Your task to perform on an android device: Go to Wikipedia Image 0: 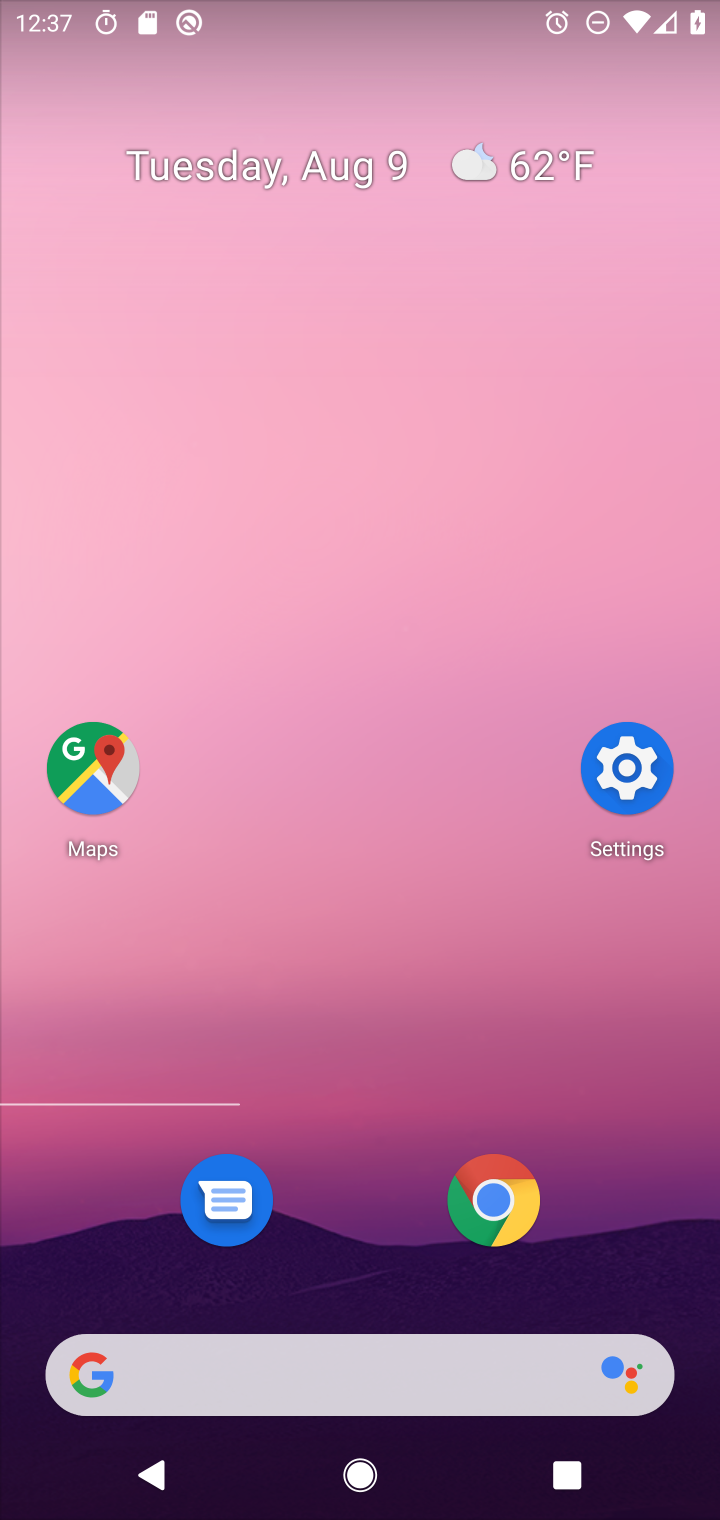
Step 0: click (501, 1197)
Your task to perform on an android device: Go to Wikipedia Image 1: 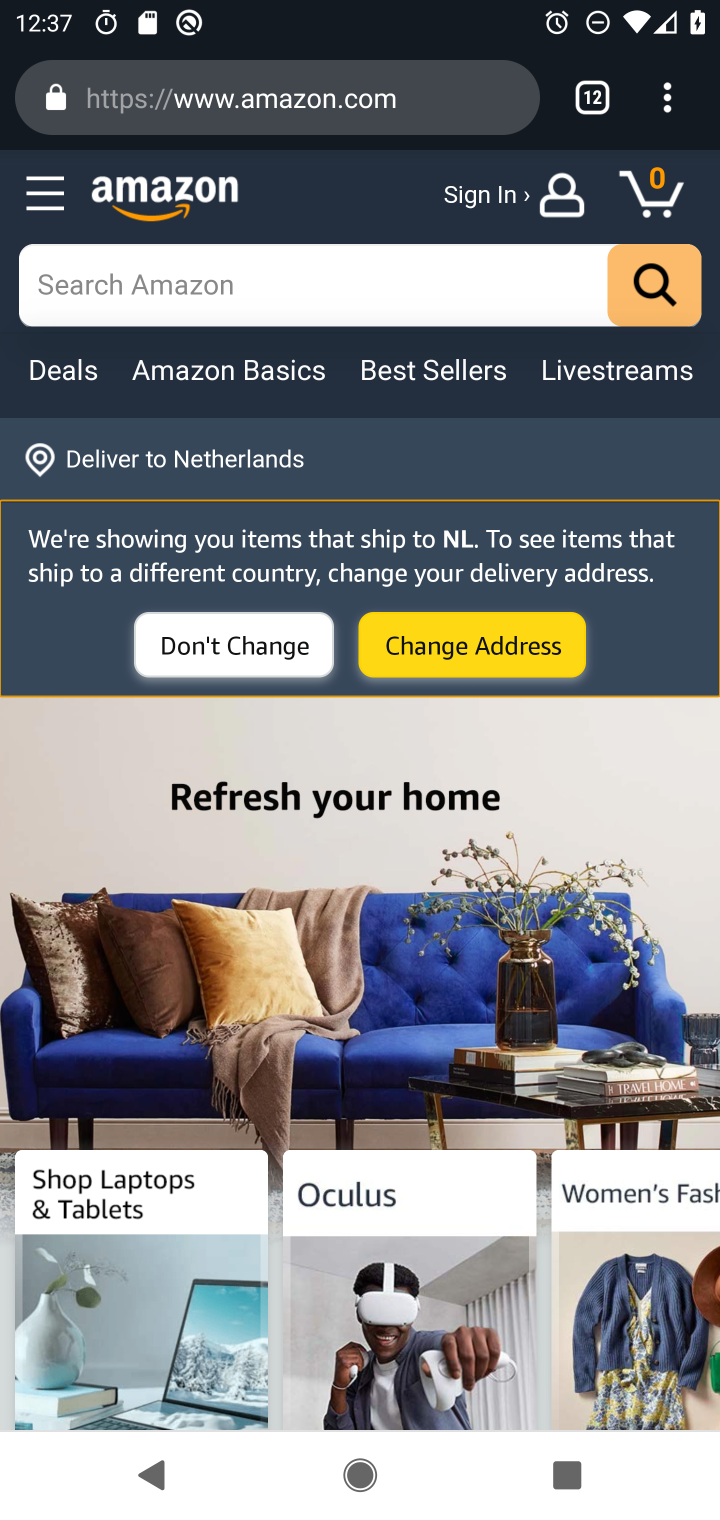
Step 1: drag from (672, 109) to (503, 298)
Your task to perform on an android device: Go to Wikipedia Image 2: 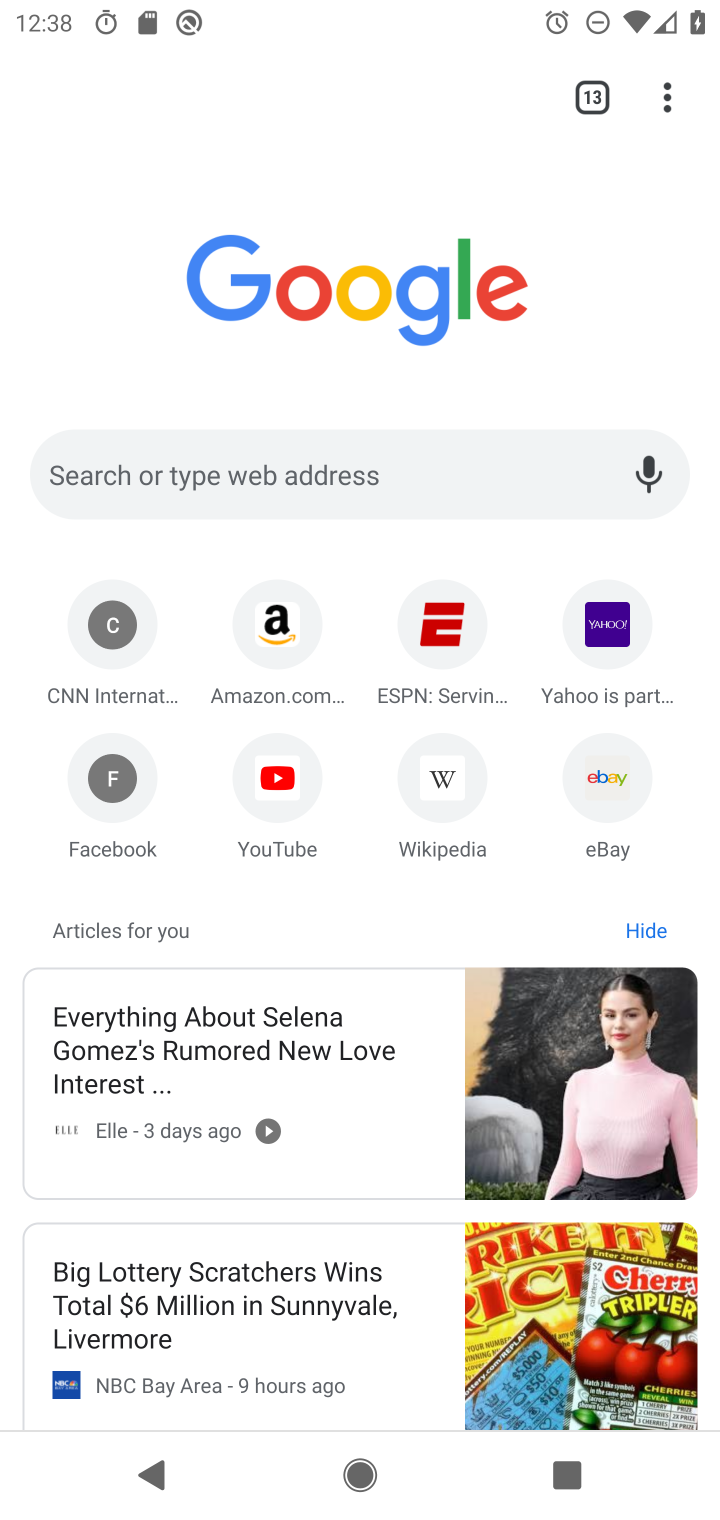
Step 2: click (459, 768)
Your task to perform on an android device: Go to Wikipedia Image 3: 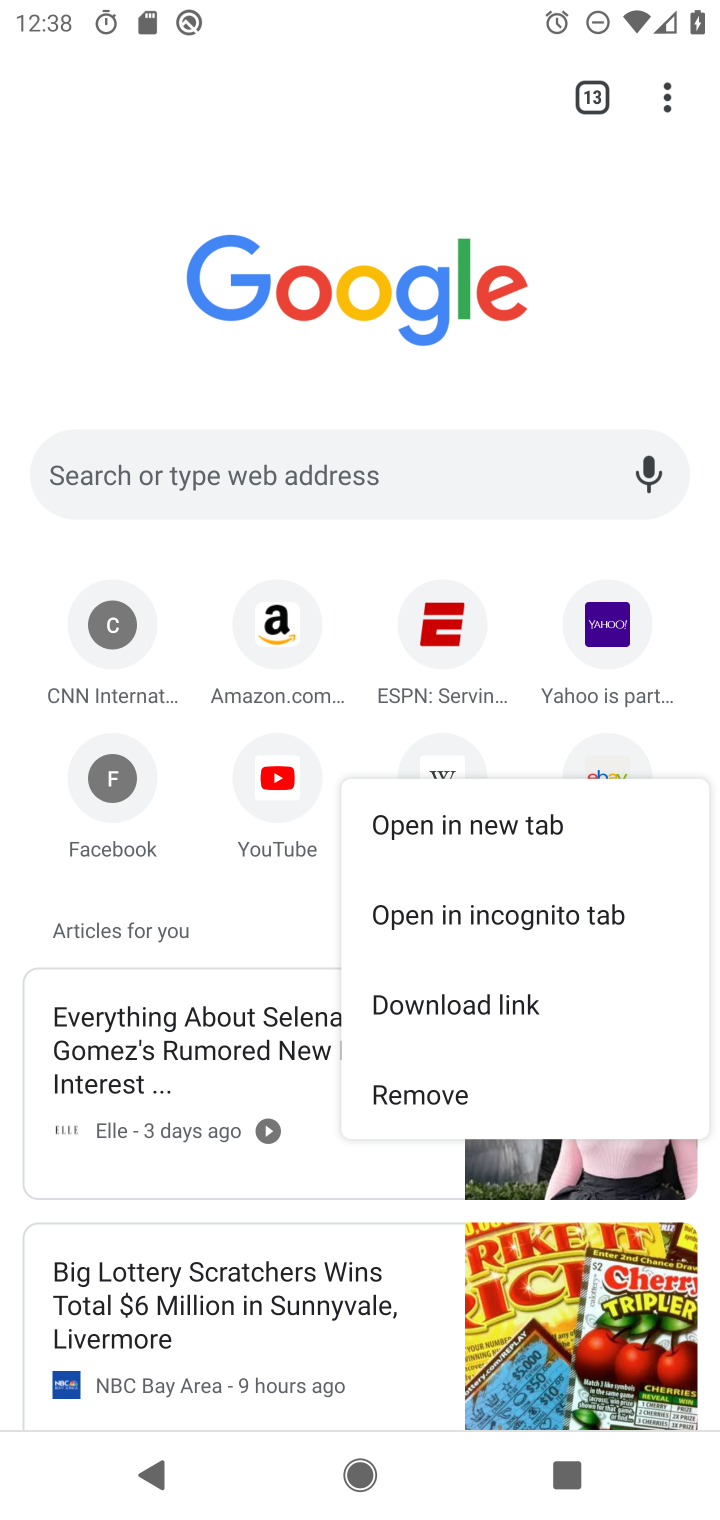
Step 3: click (446, 759)
Your task to perform on an android device: Go to Wikipedia Image 4: 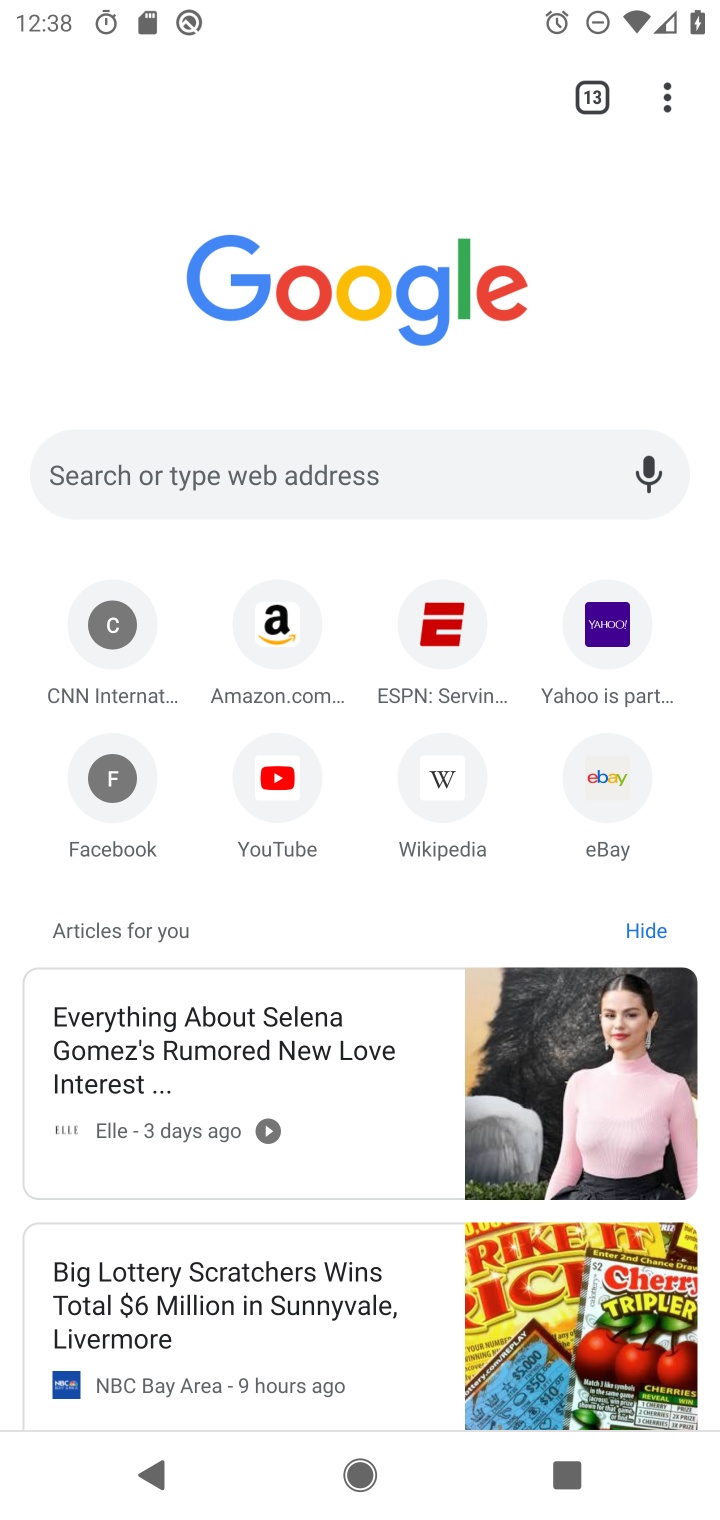
Step 4: click (427, 783)
Your task to perform on an android device: Go to Wikipedia Image 5: 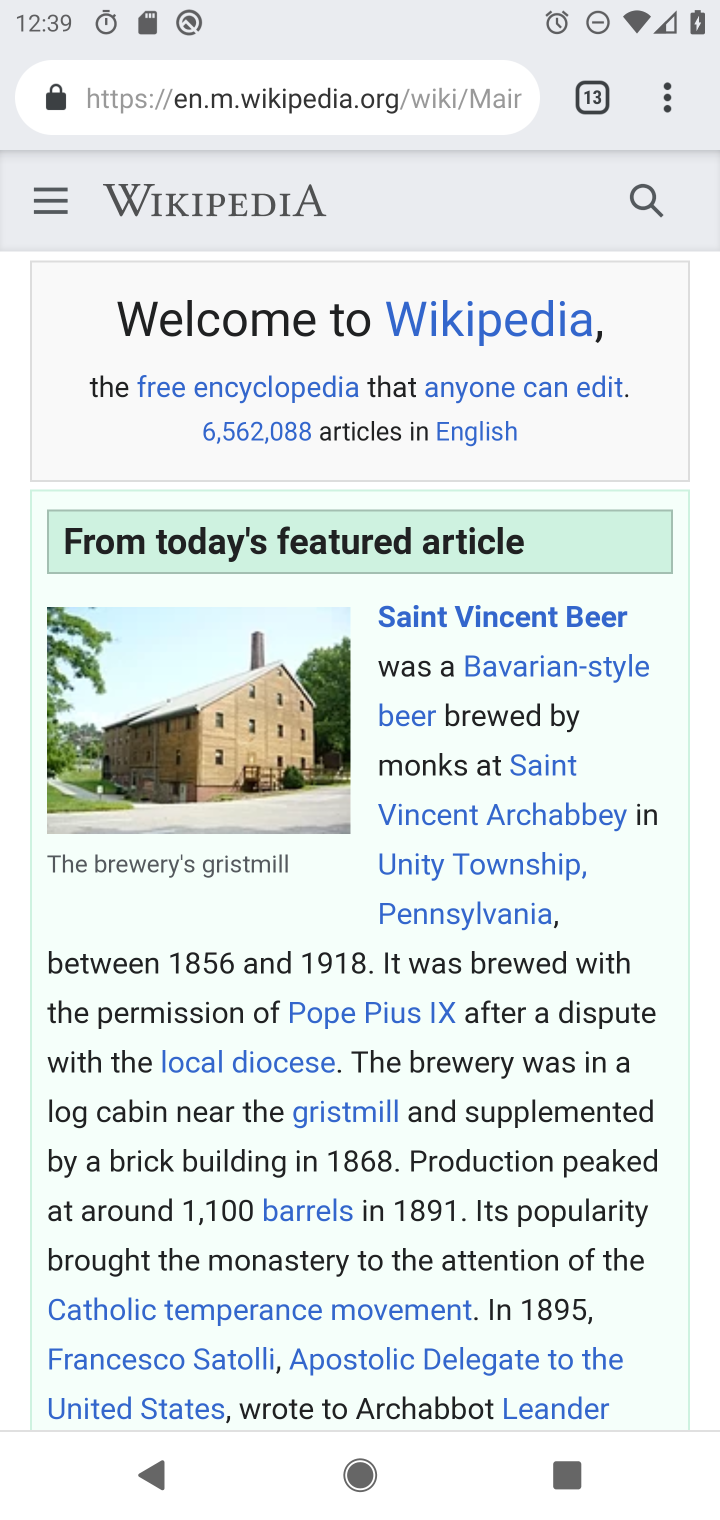
Step 5: task complete